Your task to perform on an android device: toggle priority inbox in the gmail app Image 0: 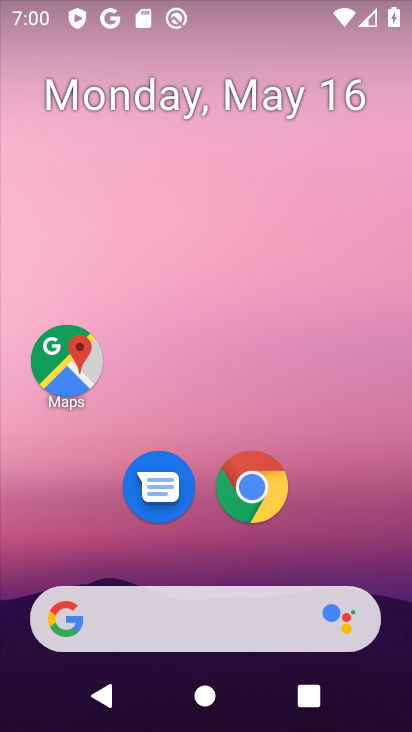
Step 0: drag from (360, 550) to (314, 109)
Your task to perform on an android device: toggle priority inbox in the gmail app Image 1: 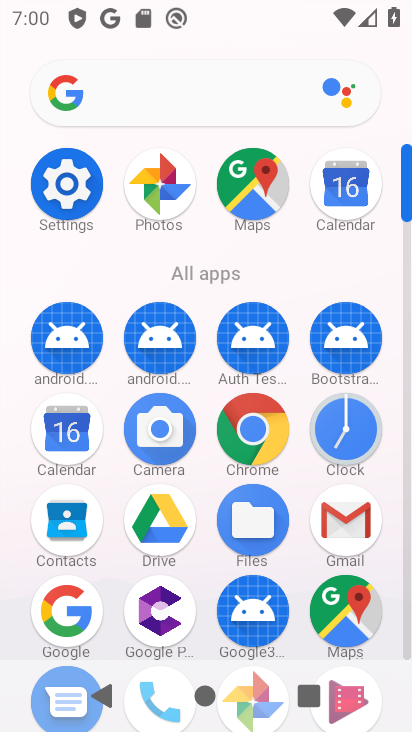
Step 1: click (333, 510)
Your task to perform on an android device: toggle priority inbox in the gmail app Image 2: 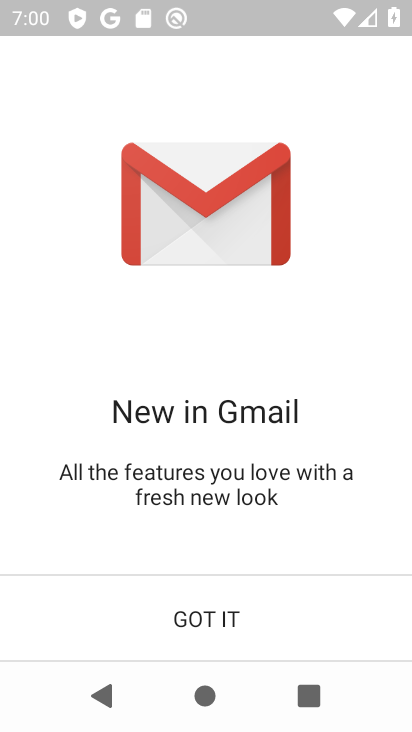
Step 2: click (290, 619)
Your task to perform on an android device: toggle priority inbox in the gmail app Image 3: 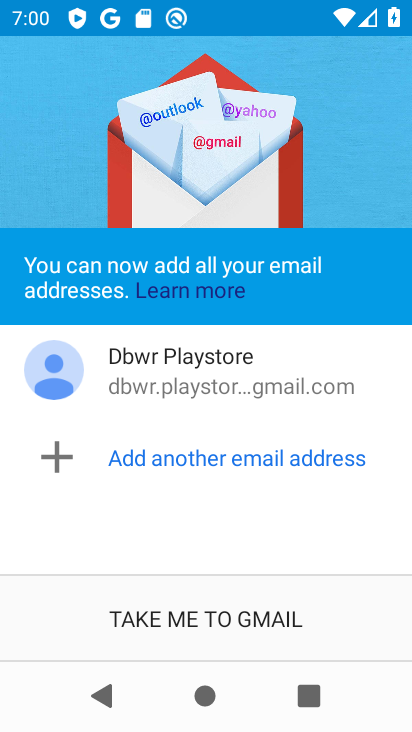
Step 3: click (268, 612)
Your task to perform on an android device: toggle priority inbox in the gmail app Image 4: 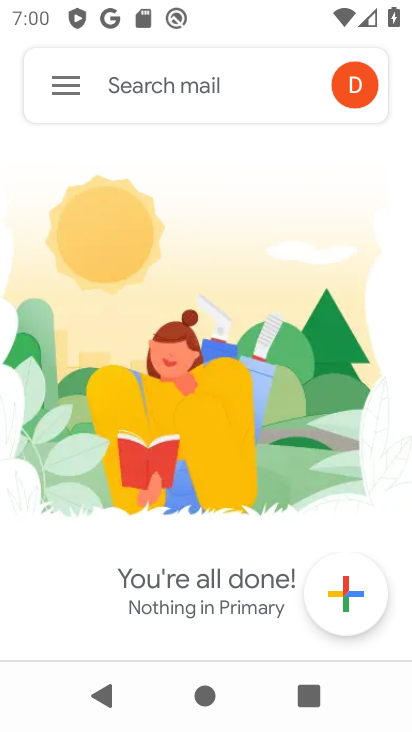
Step 4: click (61, 87)
Your task to perform on an android device: toggle priority inbox in the gmail app Image 5: 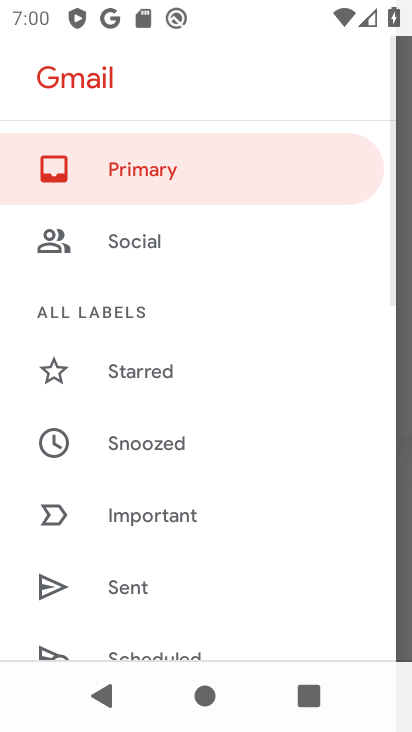
Step 5: drag from (260, 617) to (190, 127)
Your task to perform on an android device: toggle priority inbox in the gmail app Image 6: 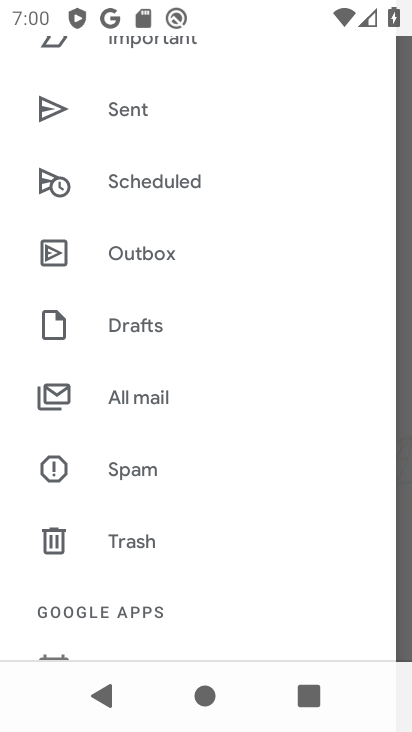
Step 6: drag from (243, 618) to (189, 187)
Your task to perform on an android device: toggle priority inbox in the gmail app Image 7: 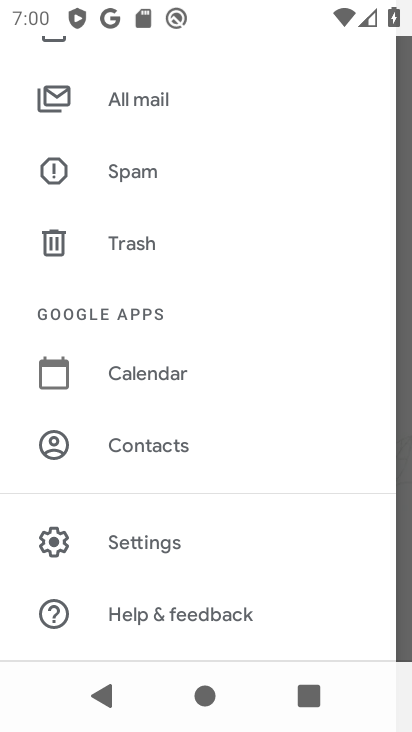
Step 7: click (173, 541)
Your task to perform on an android device: toggle priority inbox in the gmail app Image 8: 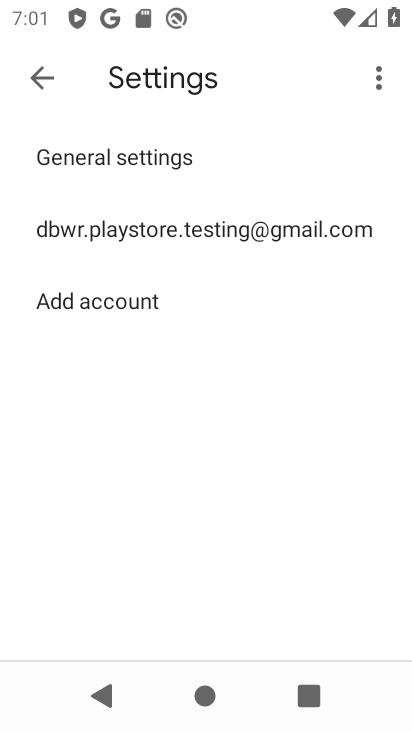
Step 8: click (145, 230)
Your task to perform on an android device: toggle priority inbox in the gmail app Image 9: 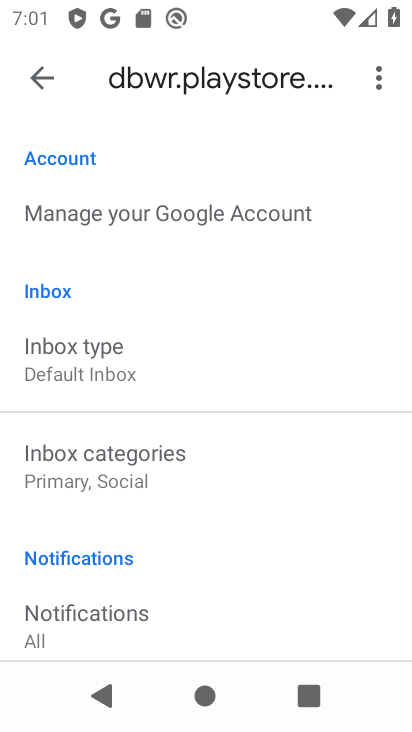
Step 9: click (118, 367)
Your task to perform on an android device: toggle priority inbox in the gmail app Image 10: 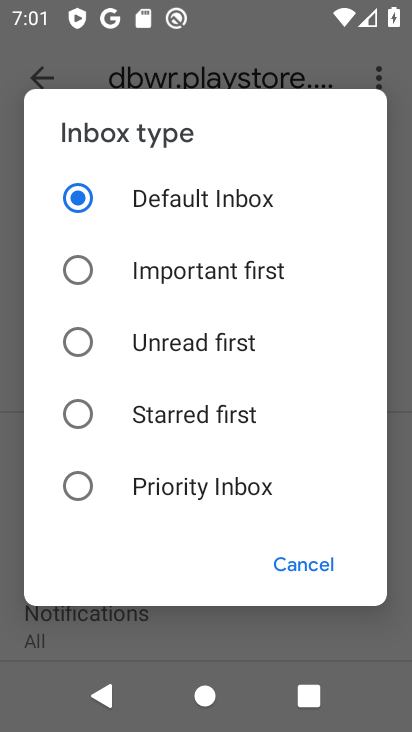
Step 10: click (146, 489)
Your task to perform on an android device: toggle priority inbox in the gmail app Image 11: 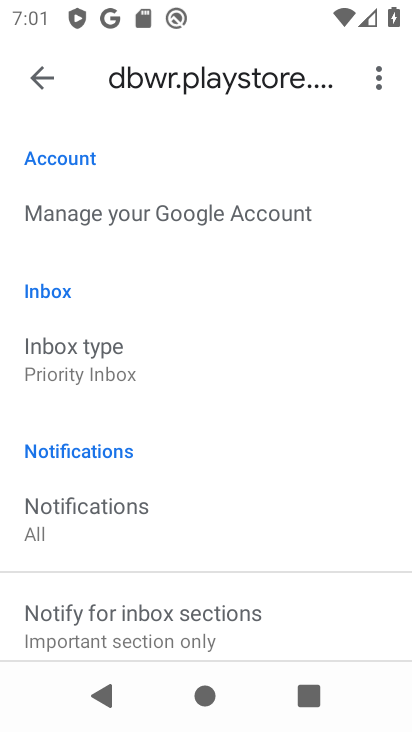
Step 11: task complete